Your task to perform on an android device: open the mobile data screen to see how much data has been used Image 0: 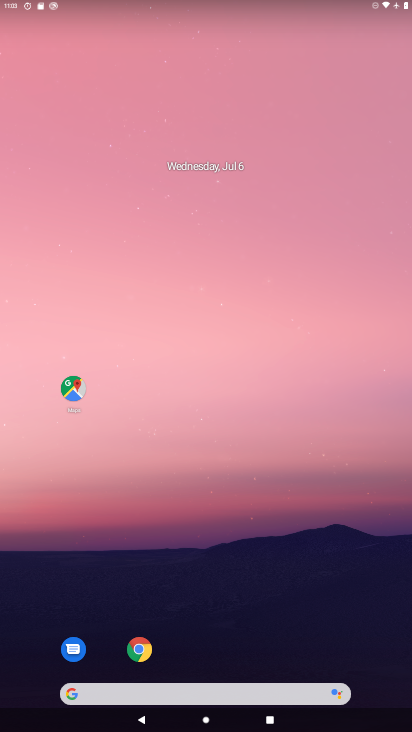
Step 0: drag from (388, 711) to (344, 118)
Your task to perform on an android device: open the mobile data screen to see how much data has been used Image 1: 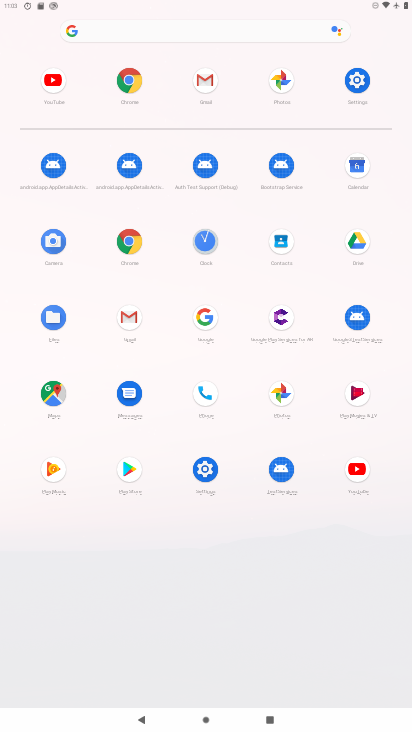
Step 1: click (353, 82)
Your task to perform on an android device: open the mobile data screen to see how much data has been used Image 2: 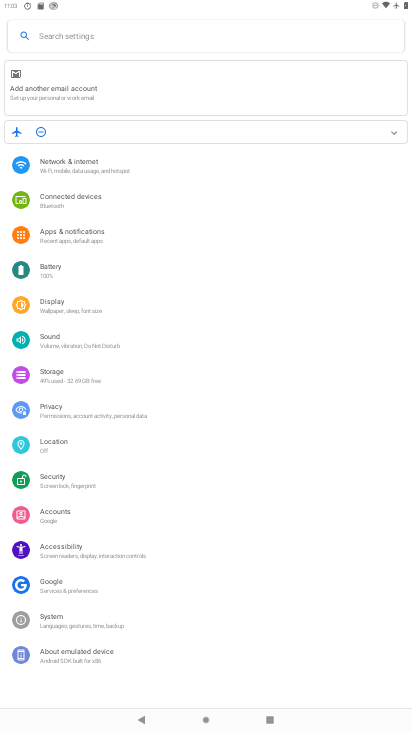
Step 2: click (70, 168)
Your task to perform on an android device: open the mobile data screen to see how much data has been used Image 3: 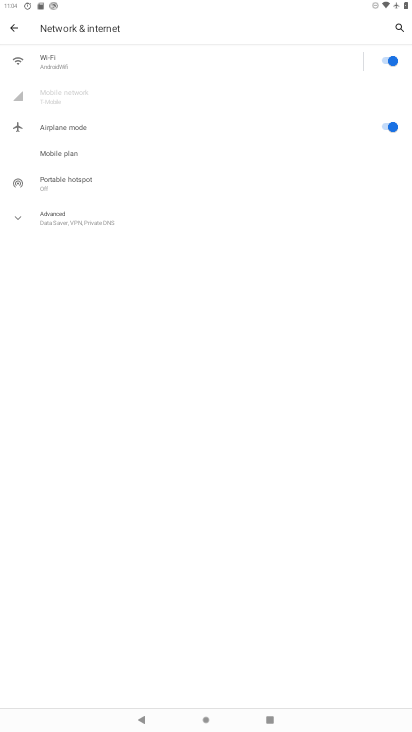
Step 3: task complete